Your task to perform on an android device: Open internet settings Image 0: 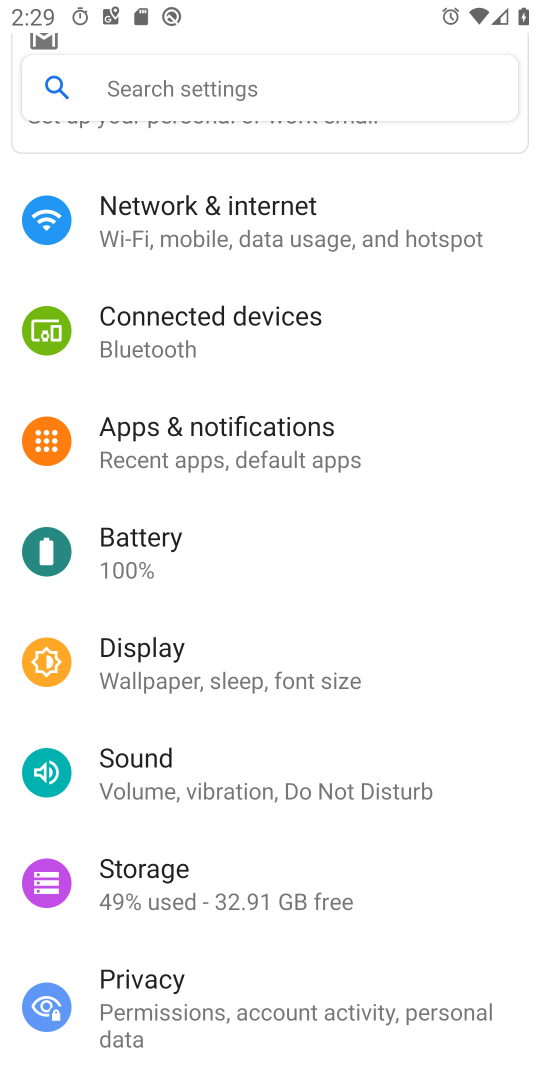
Step 0: drag from (227, 239) to (277, 239)
Your task to perform on an android device: Open internet settings Image 1: 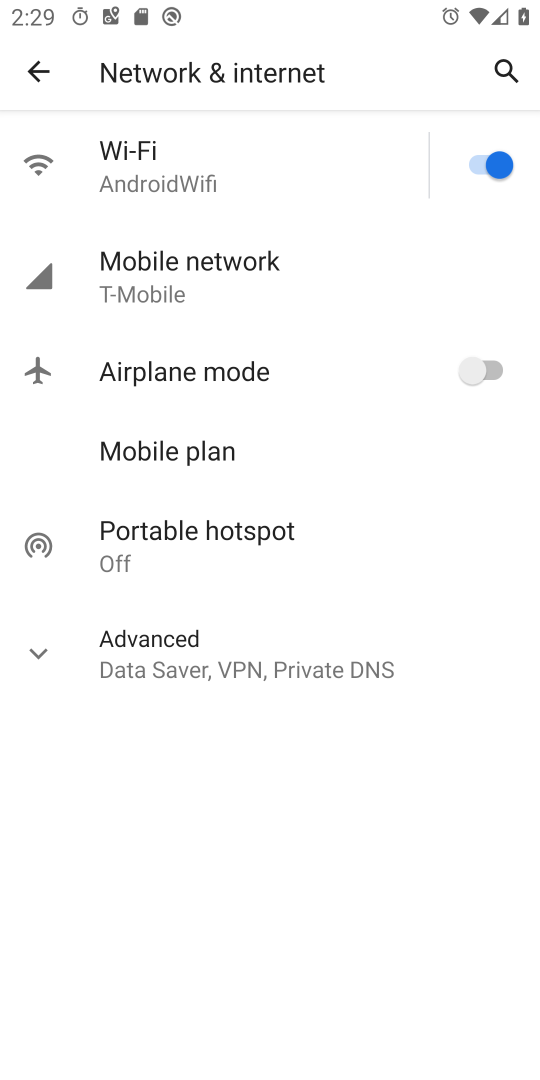
Step 1: task complete